Your task to perform on an android device: What's the weather today? Image 0: 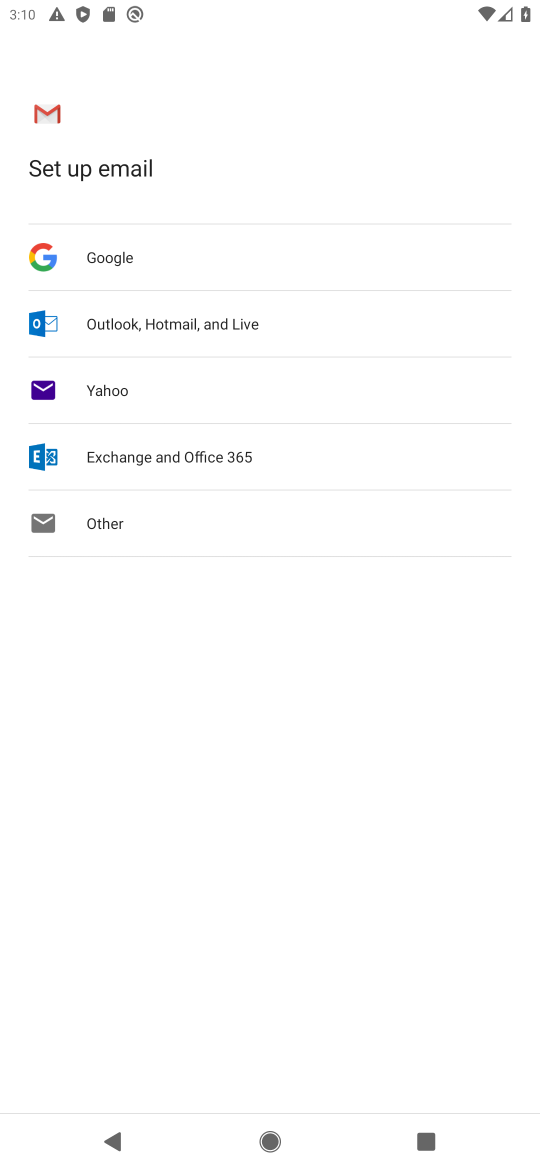
Step 0: press home button
Your task to perform on an android device: What's the weather today? Image 1: 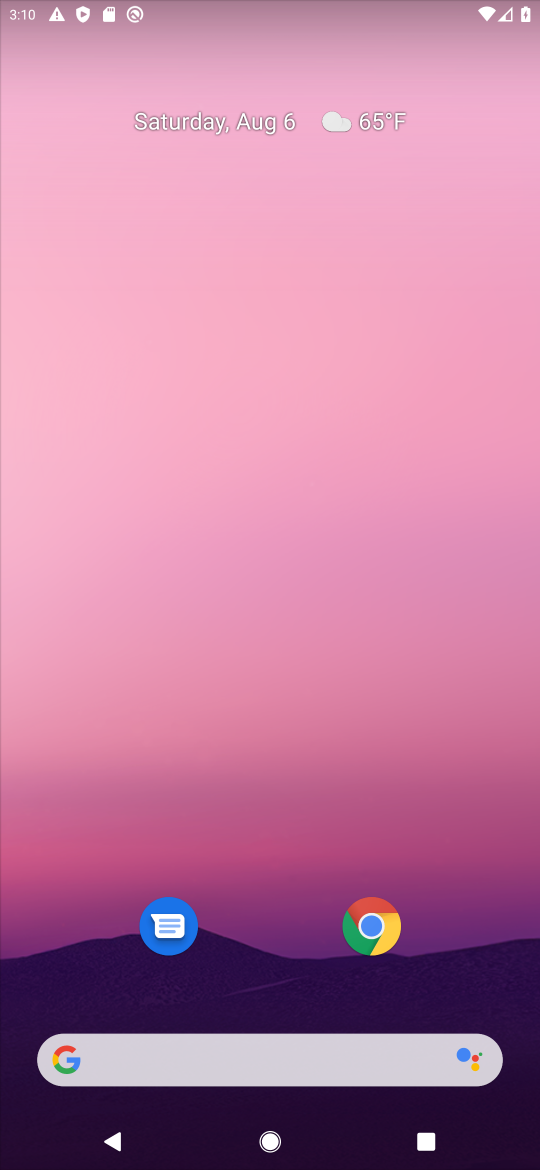
Step 1: drag from (274, 900) to (222, 193)
Your task to perform on an android device: What's the weather today? Image 2: 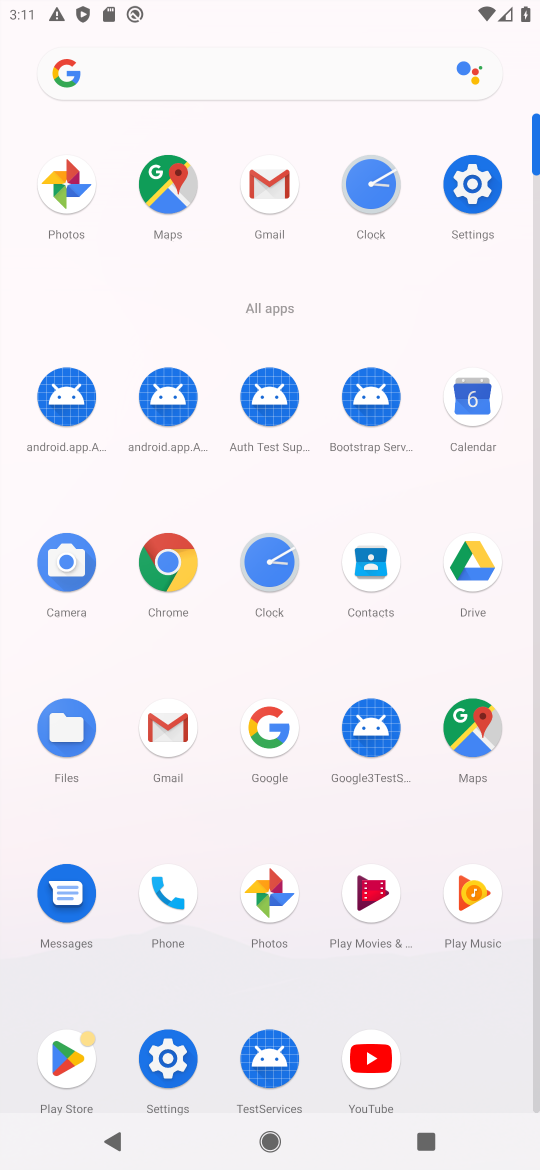
Step 2: click (270, 757)
Your task to perform on an android device: What's the weather today? Image 3: 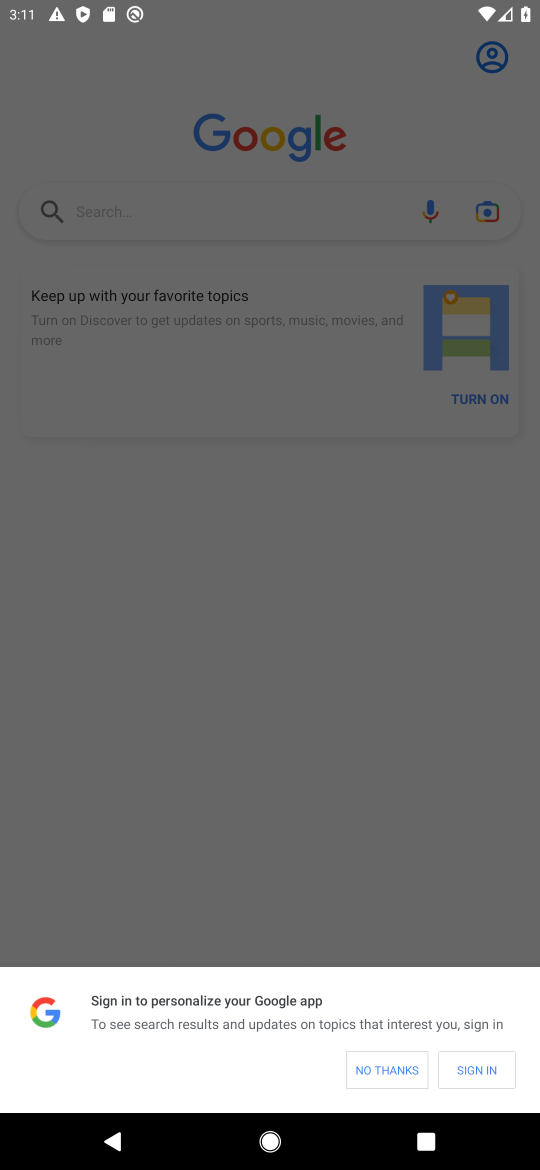
Step 3: click (388, 1076)
Your task to perform on an android device: What's the weather today? Image 4: 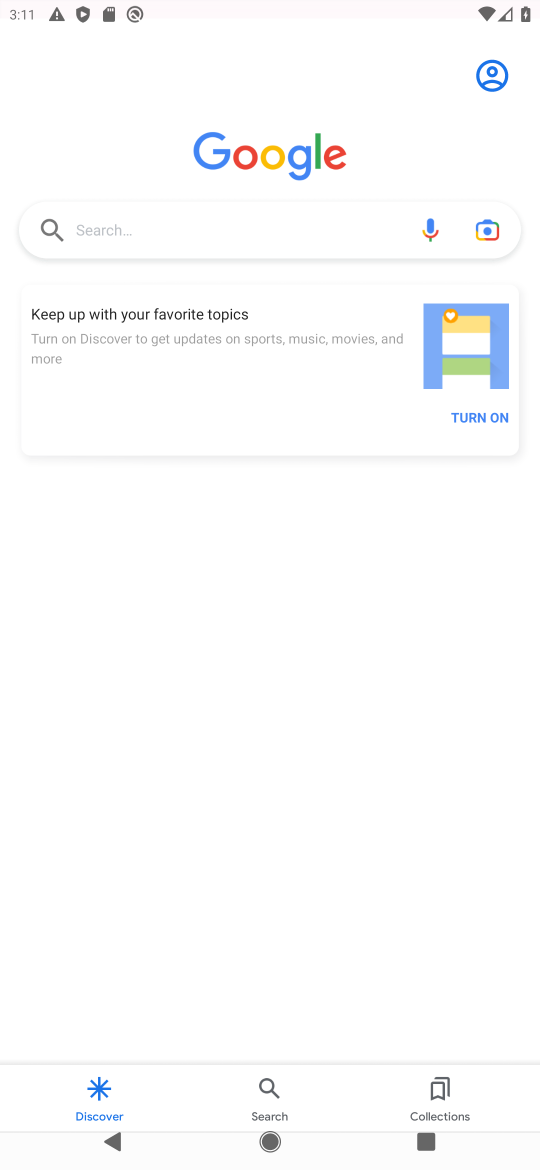
Step 4: click (147, 221)
Your task to perform on an android device: What's the weather today? Image 5: 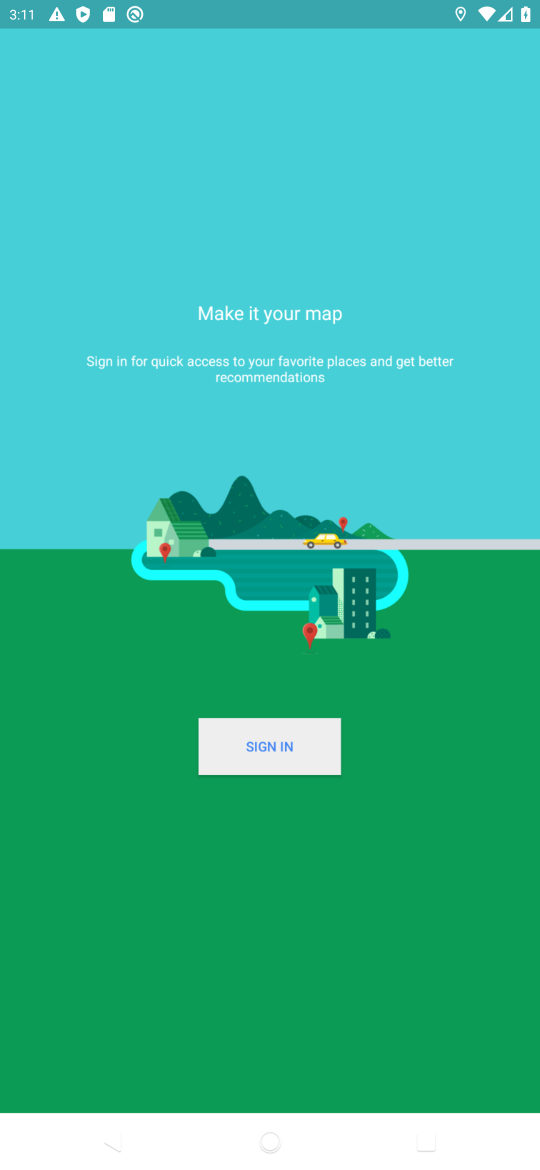
Step 5: press back button
Your task to perform on an android device: What's the weather today? Image 6: 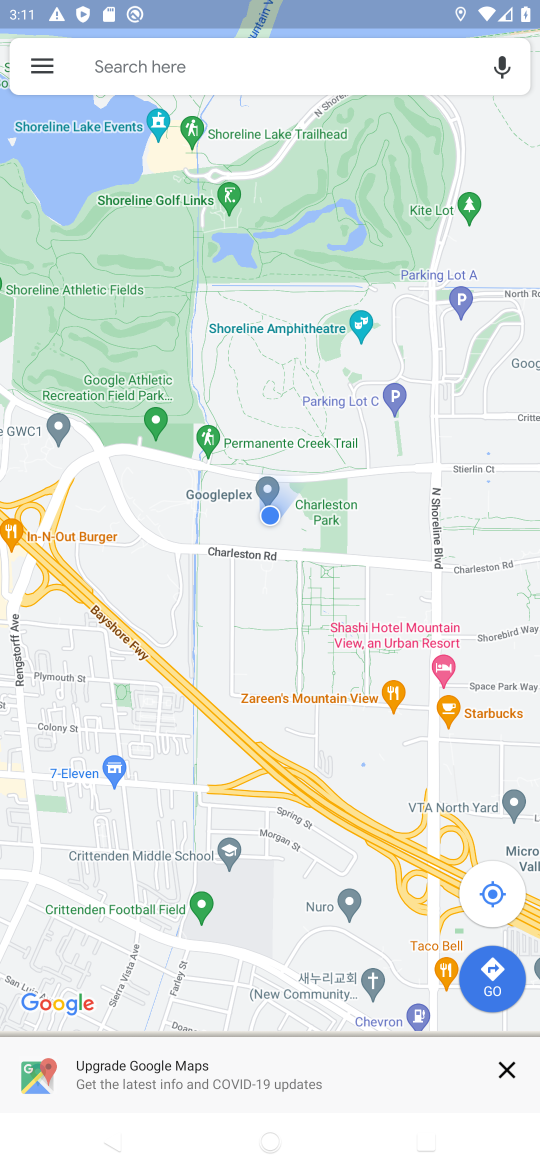
Step 6: press home button
Your task to perform on an android device: What's the weather today? Image 7: 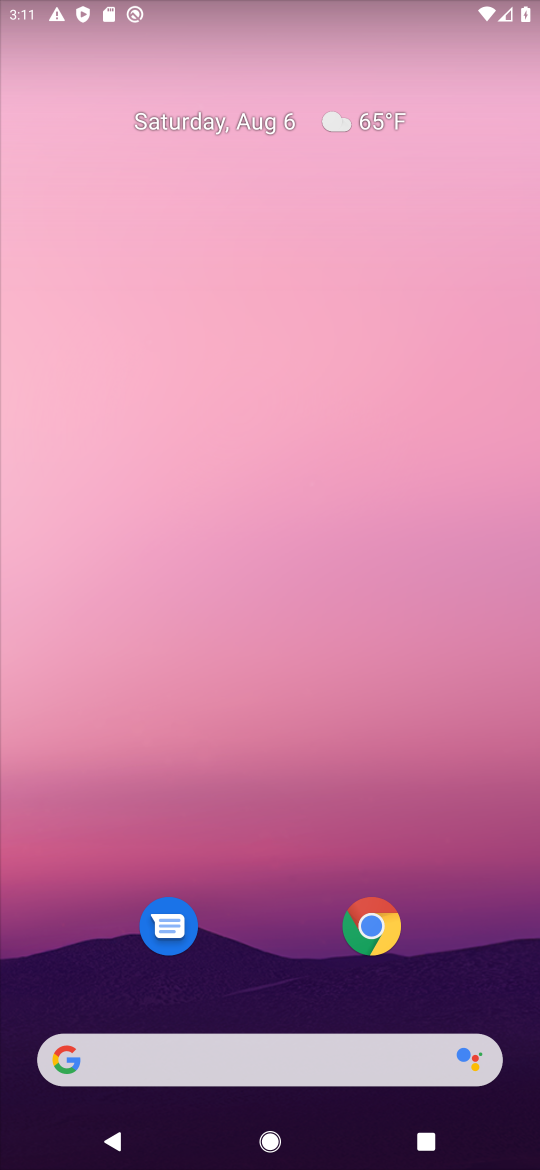
Step 7: drag from (268, 942) to (260, 305)
Your task to perform on an android device: What's the weather today? Image 8: 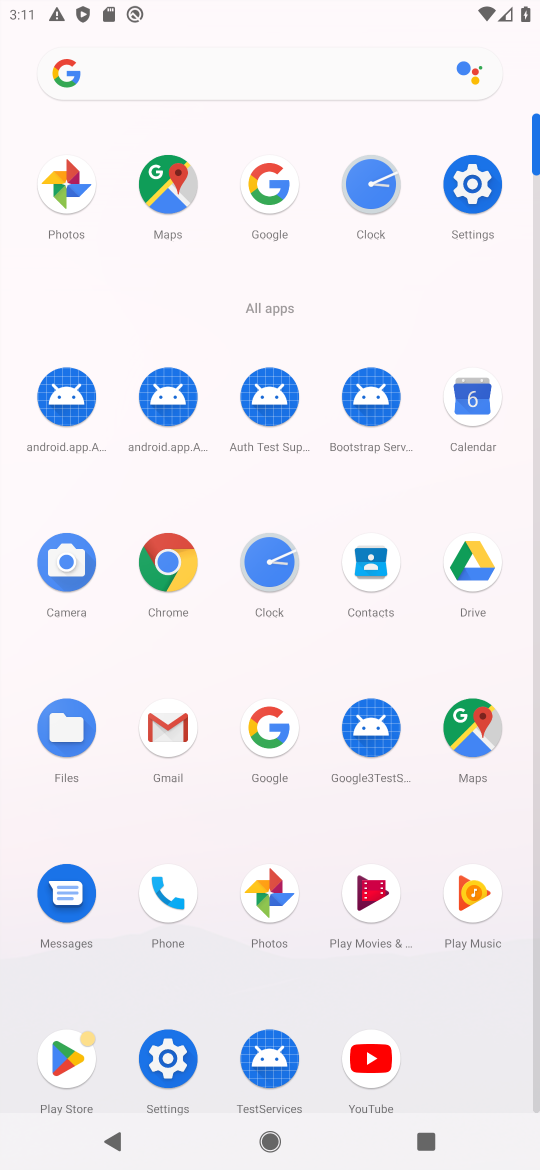
Step 8: click (251, 720)
Your task to perform on an android device: What's the weather today? Image 9: 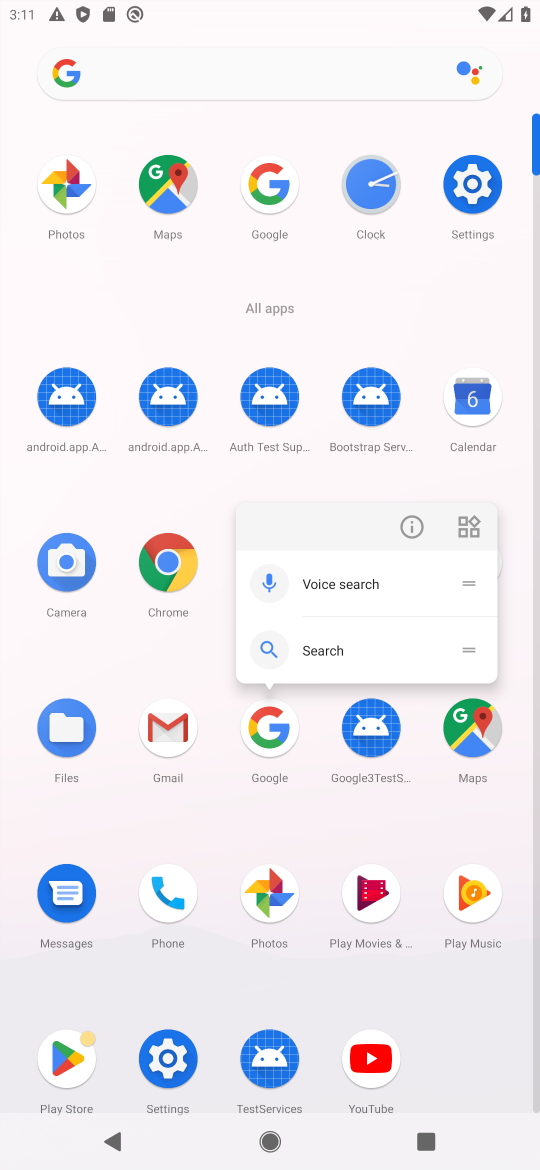
Step 9: click (253, 721)
Your task to perform on an android device: What's the weather today? Image 10: 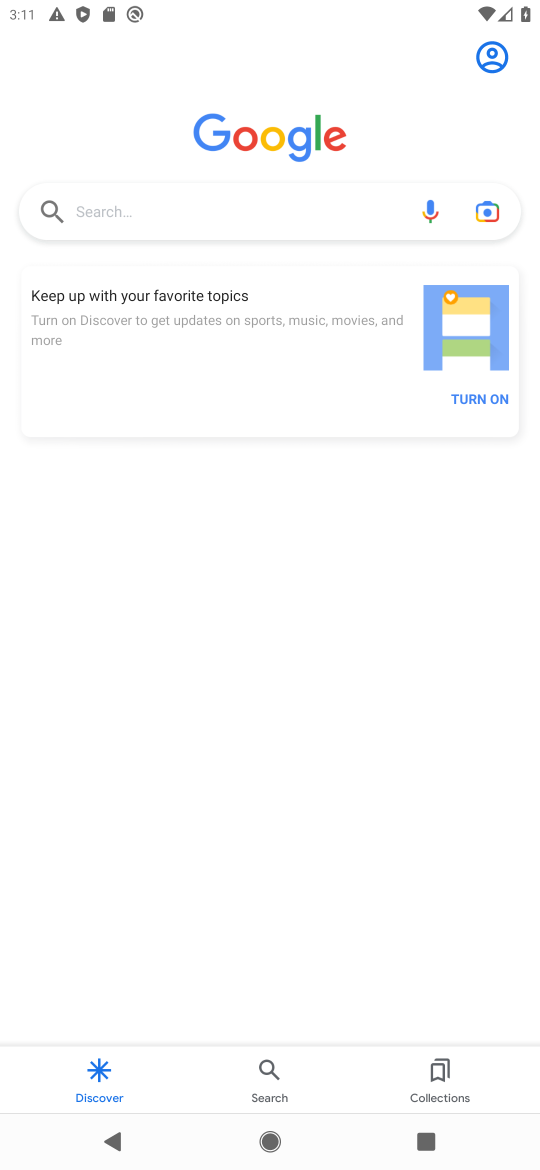
Step 10: click (206, 208)
Your task to perform on an android device: What's the weather today? Image 11: 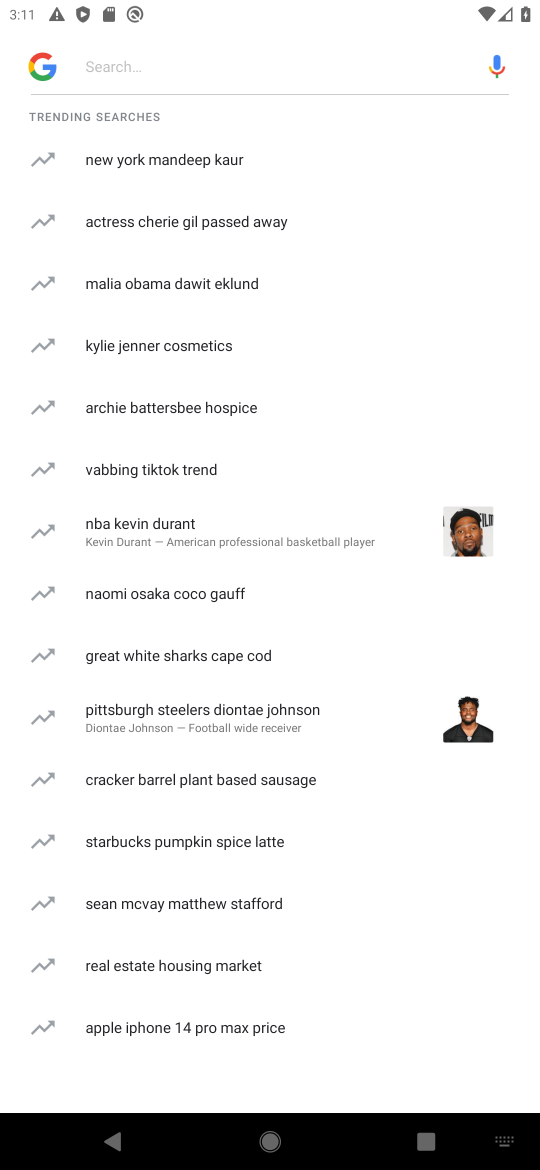
Step 11: type "weather today"
Your task to perform on an android device: What's the weather today? Image 12: 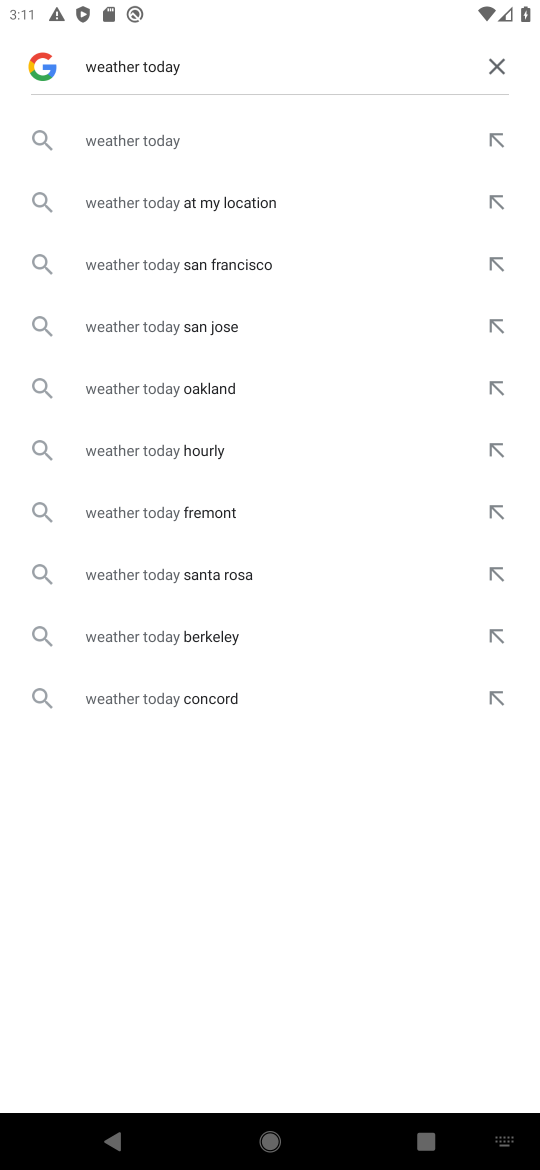
Step 12: click (181, 139)
Your task to perform on an android device: What's the weather today? Image 13: 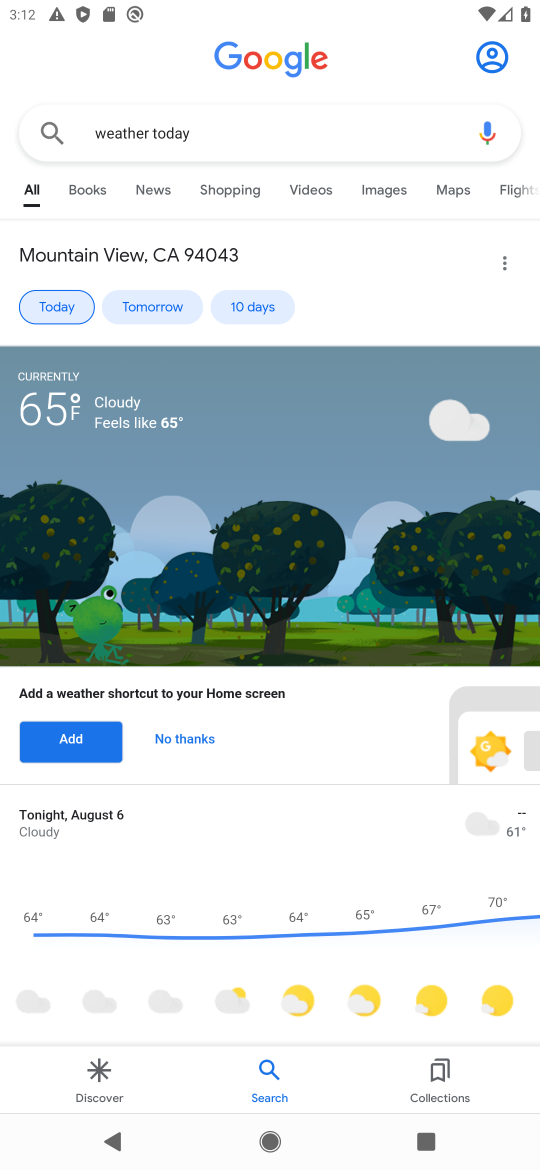
Step 13: task complete